Your task to perform on an android device: Go to privacy settings Image 0: 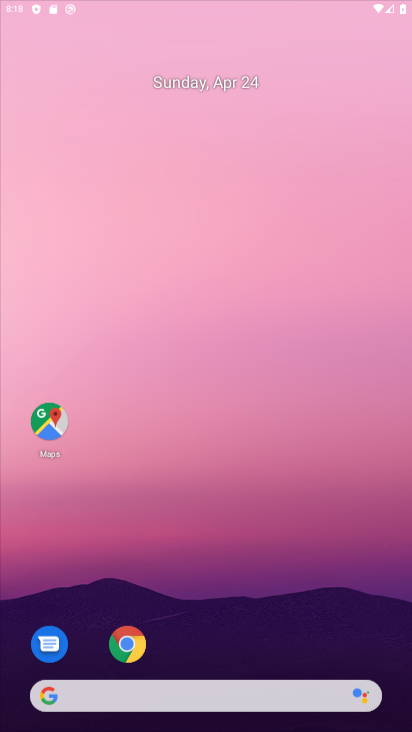
Step 0: click (119, 658)
Your task to perform on an android device: Go to privacy settings Image 1: 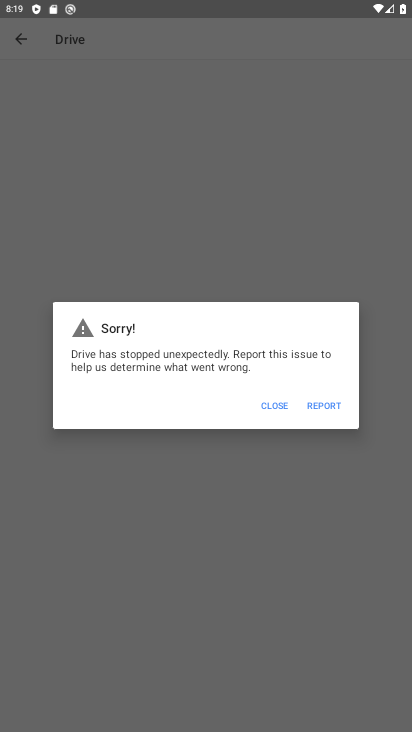
Step 1: press home button
Your task to perform on an android device: Go to privacy settings Image 2: 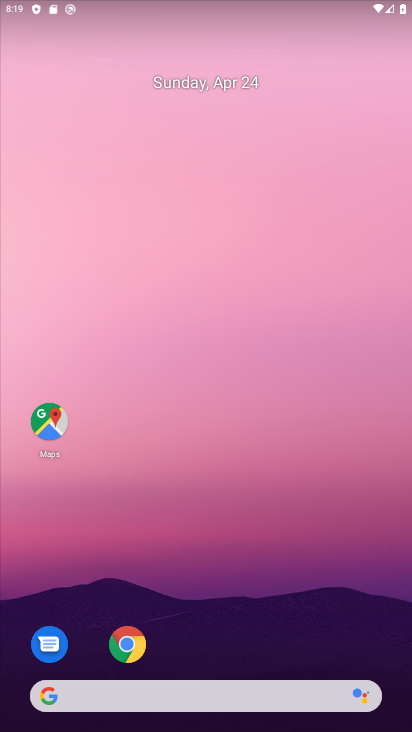
Step 2: click (129, 658)
Your task to perform on an android device: Go to privacy settings Image 3: 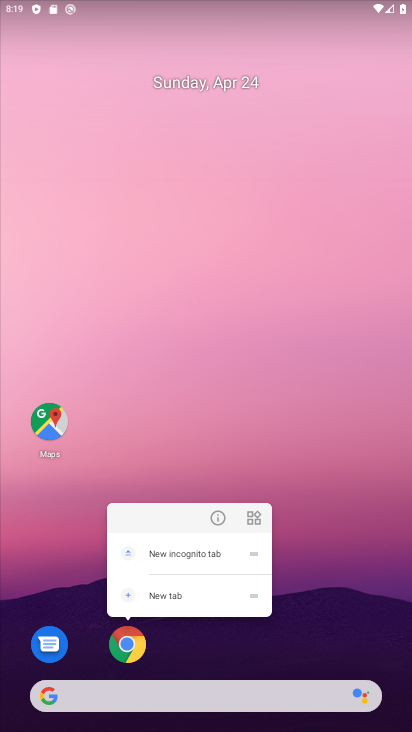
Step 3: click (129, 658)
Your task to perform on an android device: Go to privacy settings Image 4: 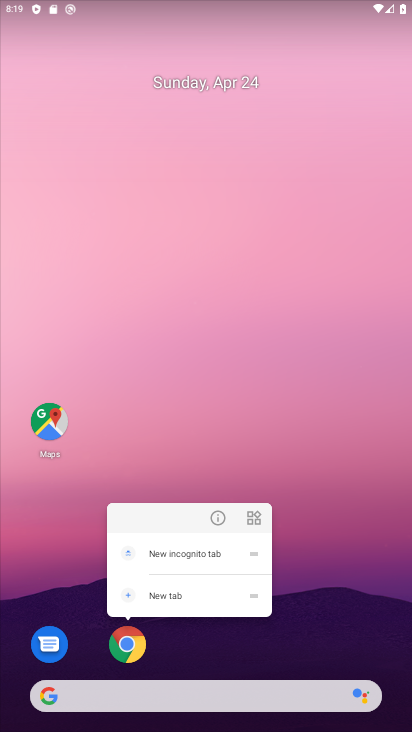
Step 4: click (126, 655)
Your task to perform on an android device: Go to privacy settings Image 5: 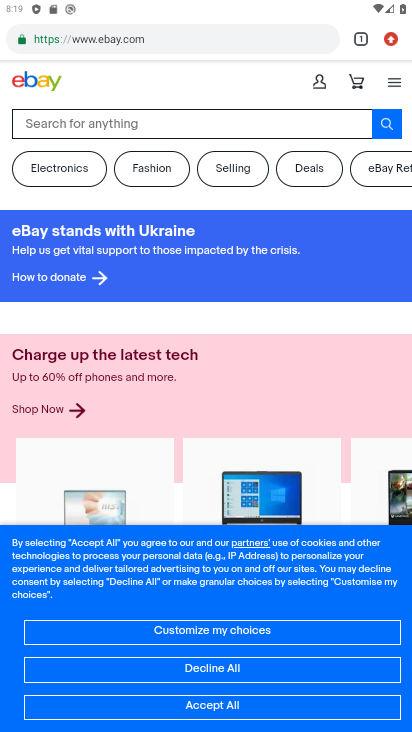
Step 5: click (396, 53)
Your task to perform on an android device: Go to privacy settings Image 6: 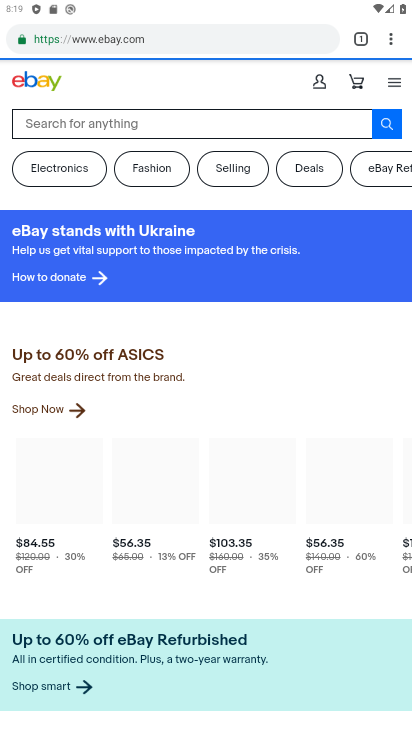
Step 6: click (389, 54)
Your task to perform on an android device: Go to privacy settings Image 7: 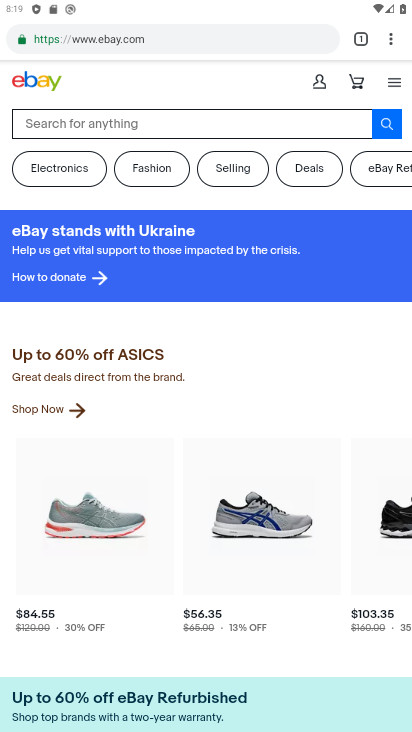
Step 7: drag from (390, 47) to (289, 522)
Your task to perform on an android device: Go to privacy settings Image 8: 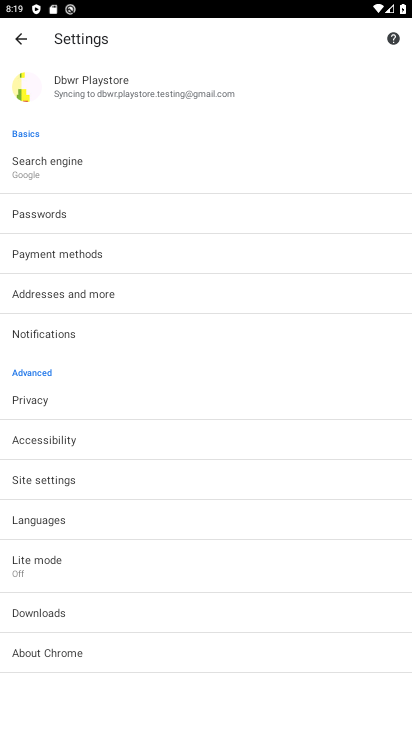
Step 8: click (262, 397)
Your task to perform on an android device: Go to privacy settings Image 9: 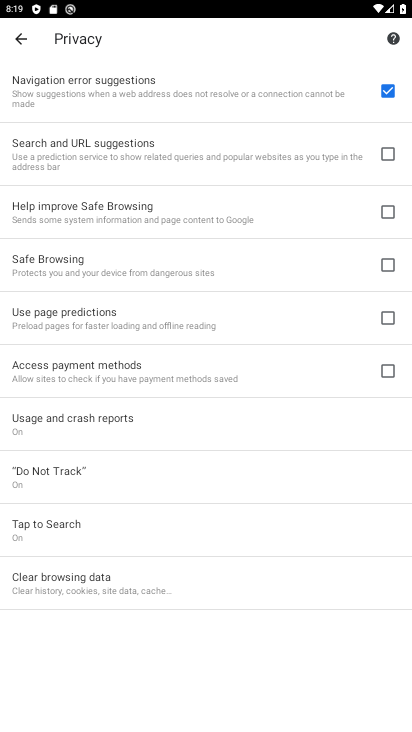
Step 9: task complete